Your task to perform on an android device: turn off improve location accuracy Image 0: 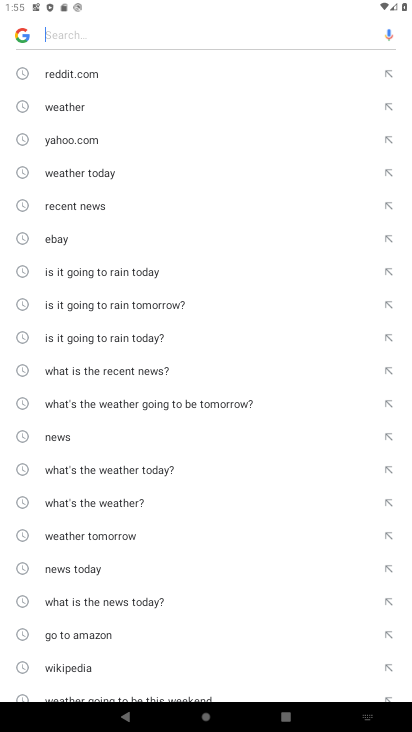
Step 0: press home button
Your task to perform on an android device: turn off improve location accuracy Image 1: 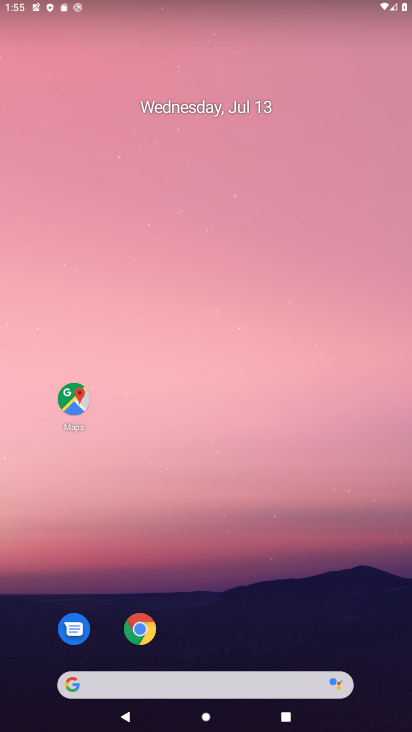
Step 1: drag from (199, 680) to (326, 171)
Your task to perform on an android device: turn off improve location accuracy Image 2: 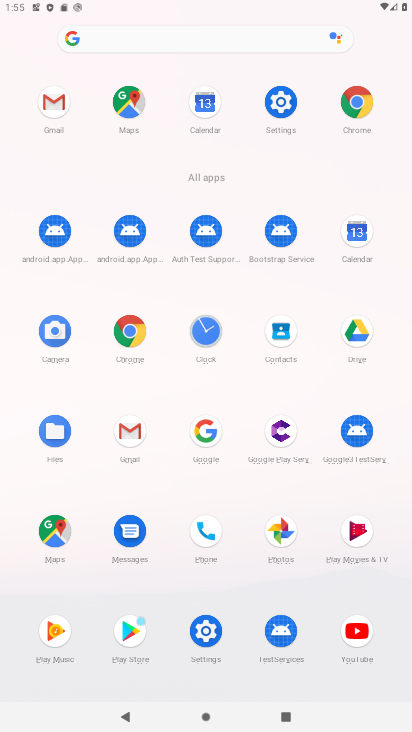
Step 2: click (281, 102)
Your task to perform on an android device: turn off improve location accuracy Image 3: 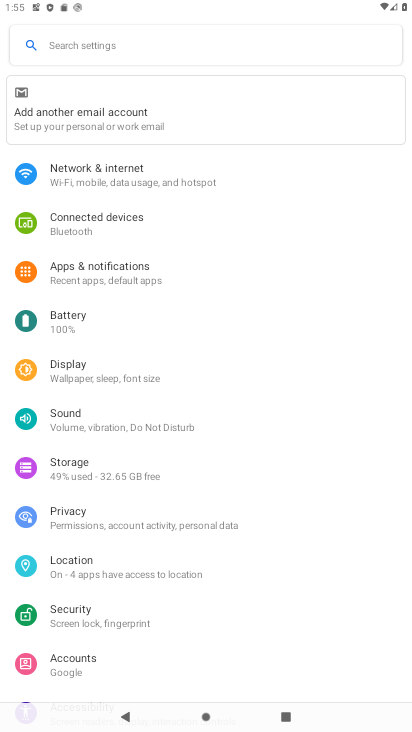
Step 3: click (68, 565)
Your task to perform on an android device: turn off improve location accuracy Image 4: 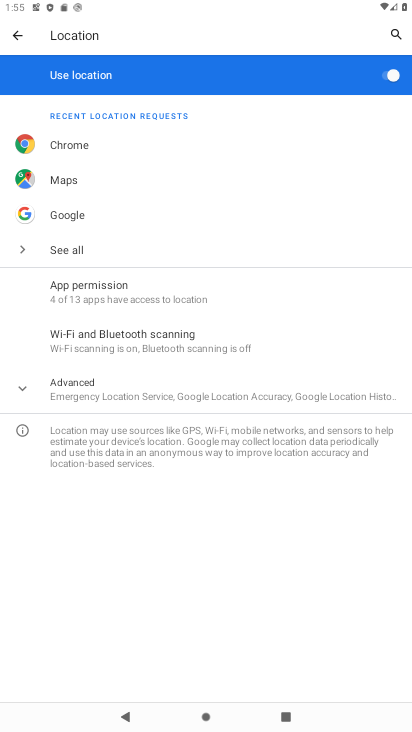
Step 4: click (136, 396)
Your task to perform on an android device: turn off improve location accuracy Image 5: 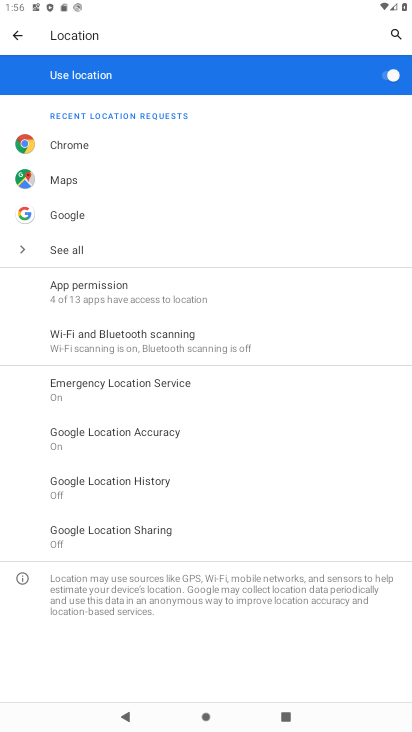
Step 5: click (144, 435)
Your task to perform on an android device: turn off improve location accuracy Image 6: 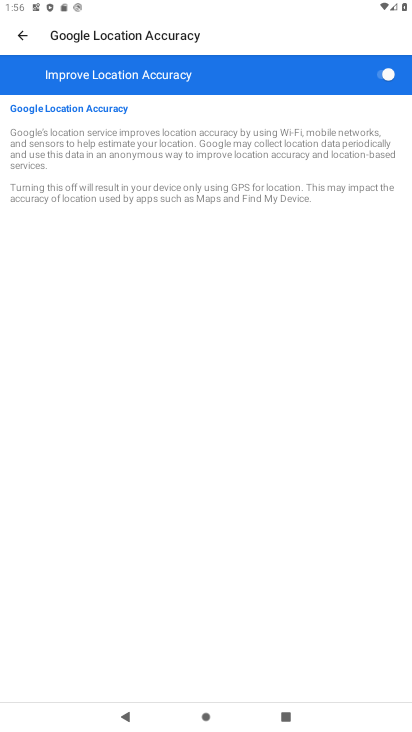
Step 6: click (390, 72)
Your task to perform on an android device: turn off improve location accuracy Image 7: 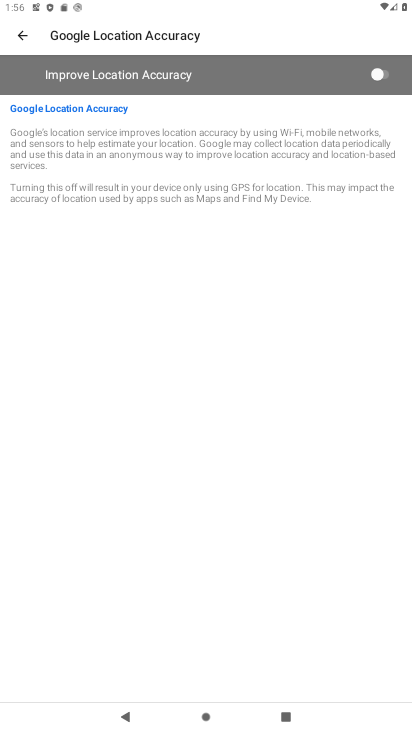
Step 7: task complete